Your task to perform on an android device: all mails in gmail Image 0: 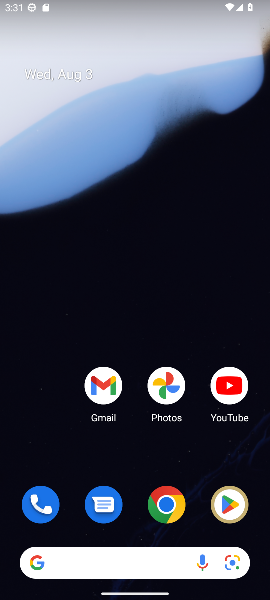
Step 0: drag from (110, 462) to (242, 13)
Your task to perform on an android device: all mails in gmail Image 1: 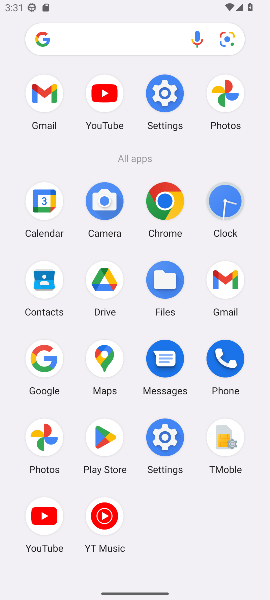
Step 1: click (233, 288)
Your task to perform on an android device: all mails in gmail Image 2: 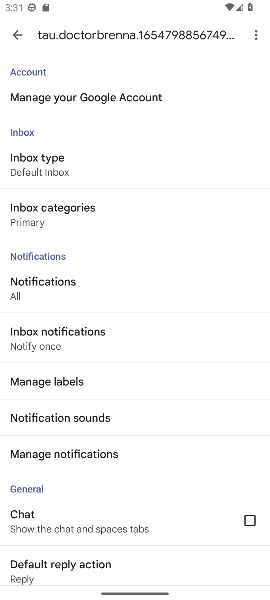
Step 2: click (19, 26)
Your task to perform on an android device: all mails in gmail Image 3: 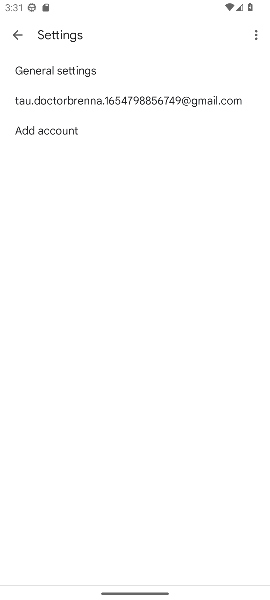
Step 3: click (14, 37)
Your task to perform on an android device: all mails in gmail Image 4: 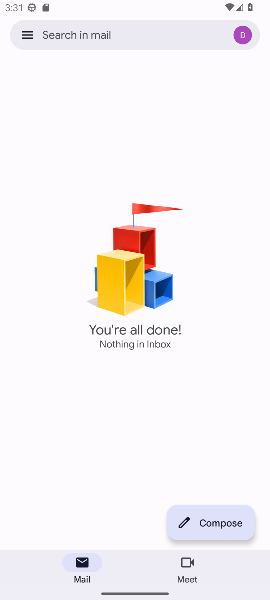
Step 4: click (18, 39)
Your task to perform on an android device: all mails in gmail Image 5: 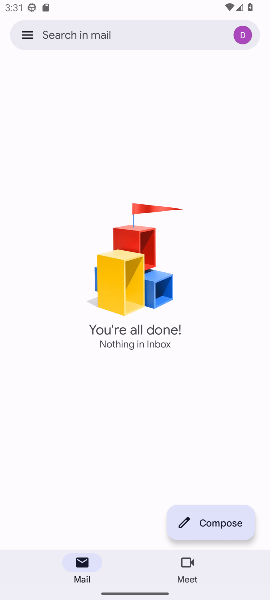
Step 5: click (30, 24)
Your task to perform on an android device: all mails in gmail Image 6: 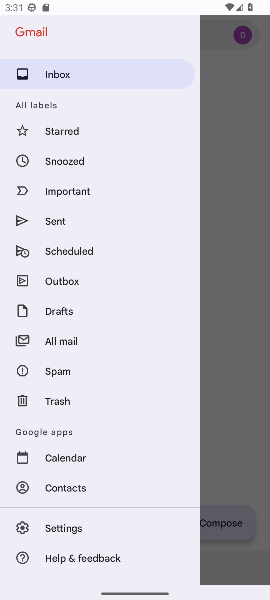
Step 6: click (66, 345)
Your task to perform on an android device: all mails in gmail Image 7: 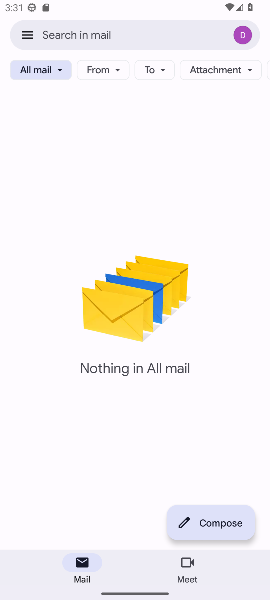
Step 7: task complete